Your task to perform on an android device: find snoozed emails in the gmail app Image 0: 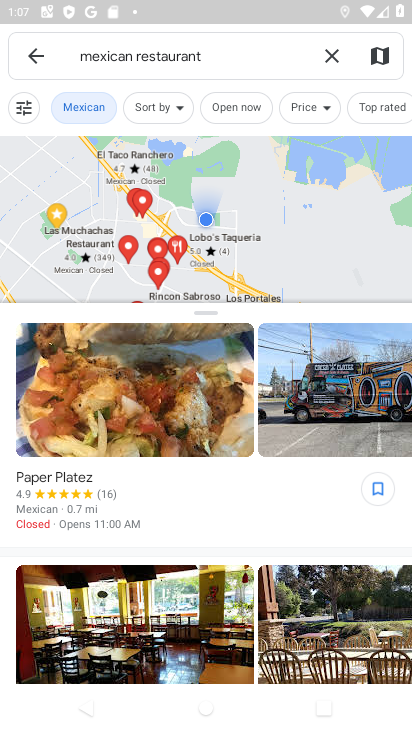
Step 0: press home button
Your task to perform on an android device: find snoozed emails in the gmail app Image 1: 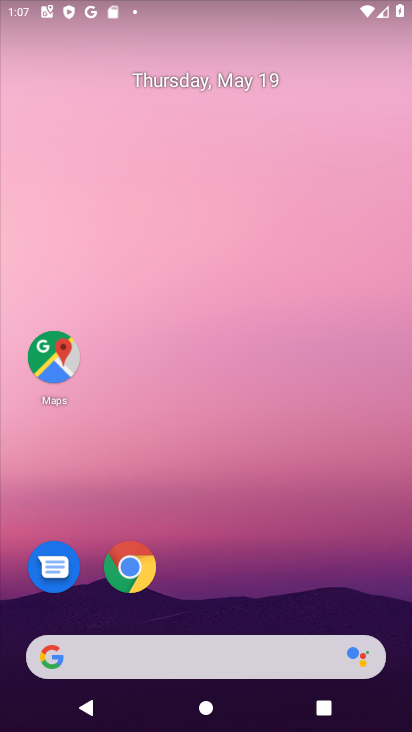
Step 1: drag from (296, 506) to (255, 23)
Your task to perform on an android device: find snoozed emails in the gmail app Image 2: 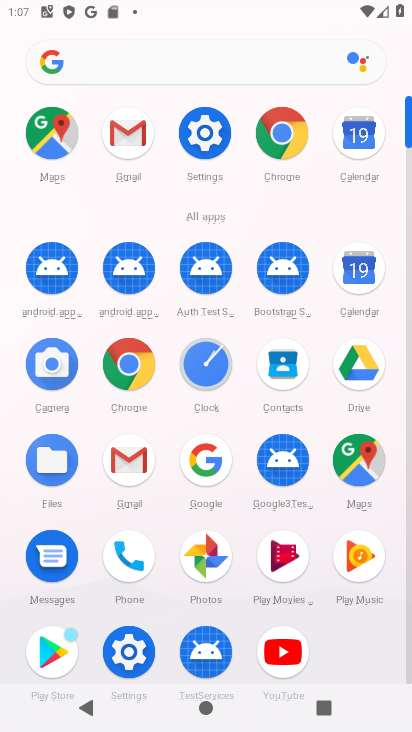
Step 2: click (139, 136)
Your task to perform on an android device: find snoozed emails in the gmail app Image 3: 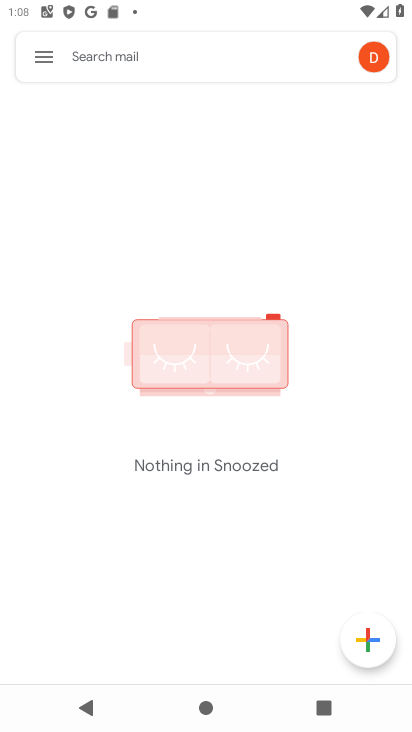
Step 3: task complete